Your task to perform on an android device: turn smart compose on in the gmail app Image 0: 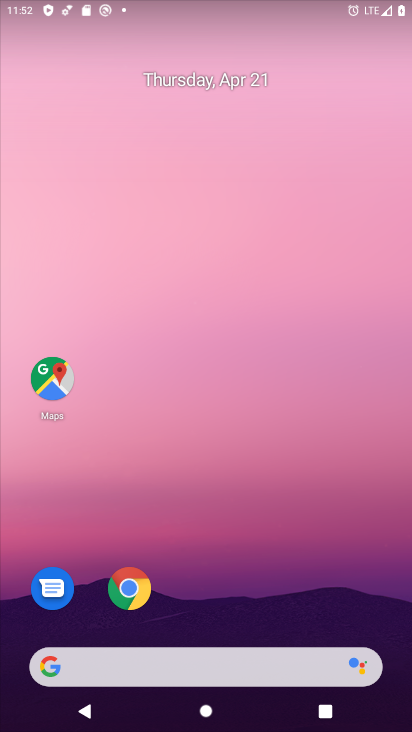
Step 0: drag from (246, 700) to (303, 118)
Your task to perform on an android device: turn smart compose on in the gmail app Image 1: 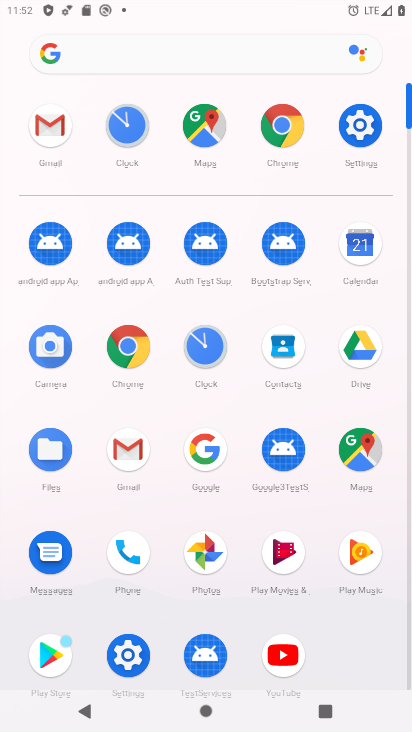
Step 1: click (124, 449)
Your task to perform on an android device: turn smart compose on in the gmail app Image 2: 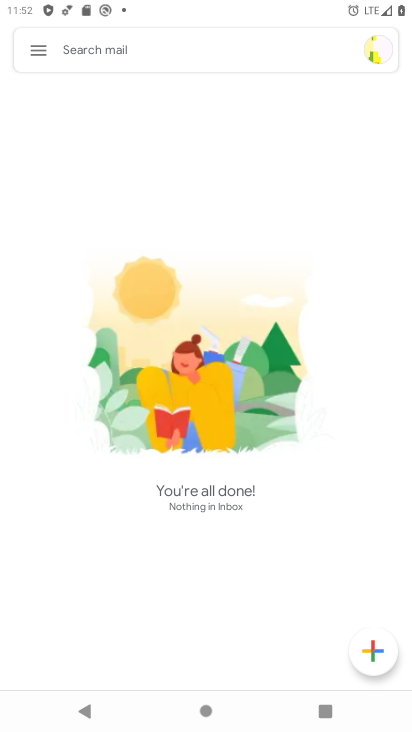
Step 2: click (42, 49)
Your task to perform on an android device: turn smart compose on in the gmail app Image 3: 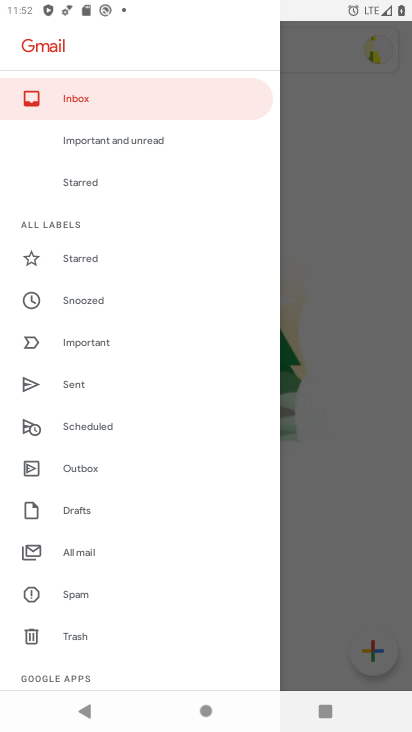
Step 3: drag from (85, 585) to (140, 416)
Your task to perform on an android device: turn smart compose on in the gmail app Image 4: 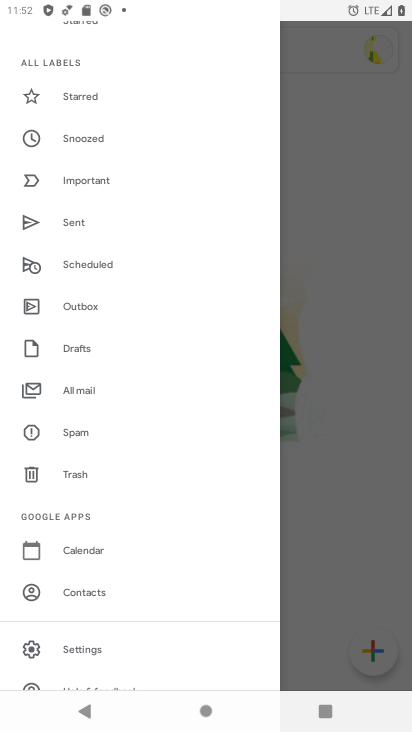
Step 4: click (73, 651)
Your task to perform on an android device: turn smart compose on in the gmail app Image 5: 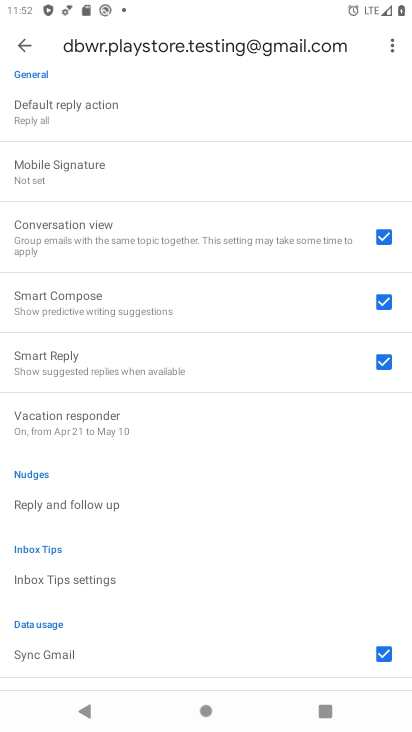
Step 5: drag from (110, 609) to (210, 268)
Your task to perform on an android device: turn smart compose on in the gmail app Image 6: 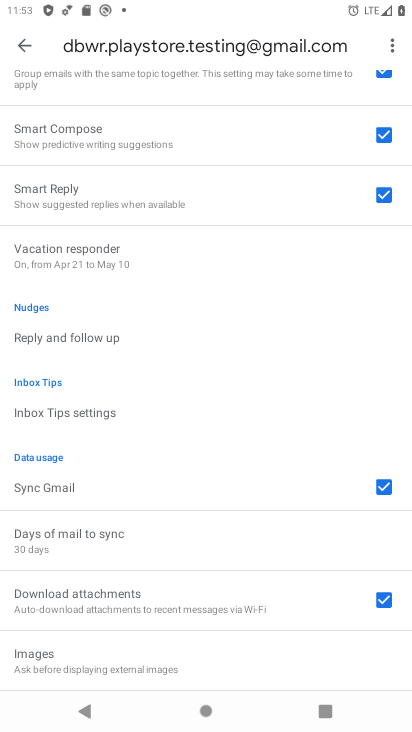
Step 6: click (384, 188)
Your task to perform on an android device: turn smart compose on in the gmail app Image 7: 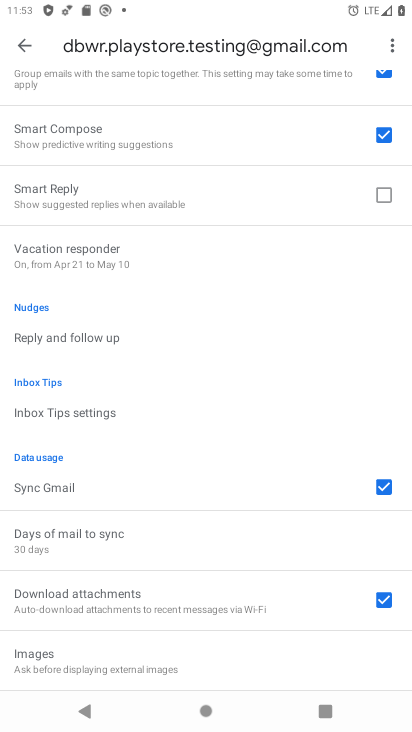
Step 7: click (380, 205)
Your task to perform on an android device: turn smart compose on in the gmail app Image 8: 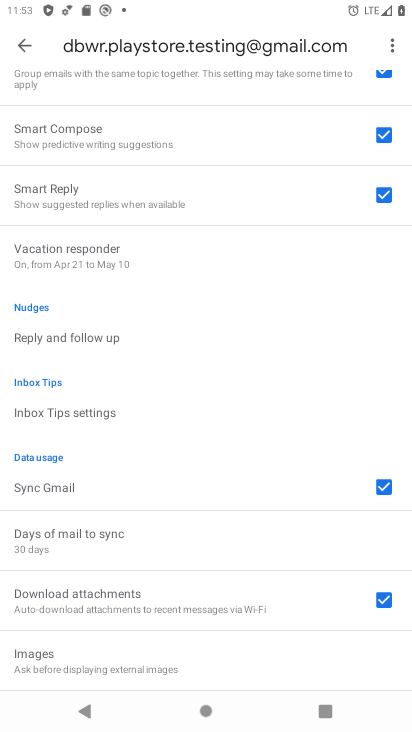
Step 8: task complete